Your task to perform on an android device: Open Google Chrome and open the bookmarks view Image 0: 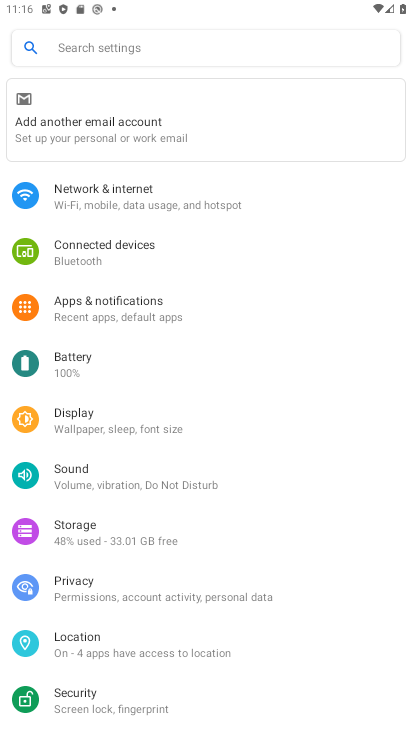
Step 0: press home button
Your task to perform on an android device: Open Google Chrome and open the bookmarks view Image 1: 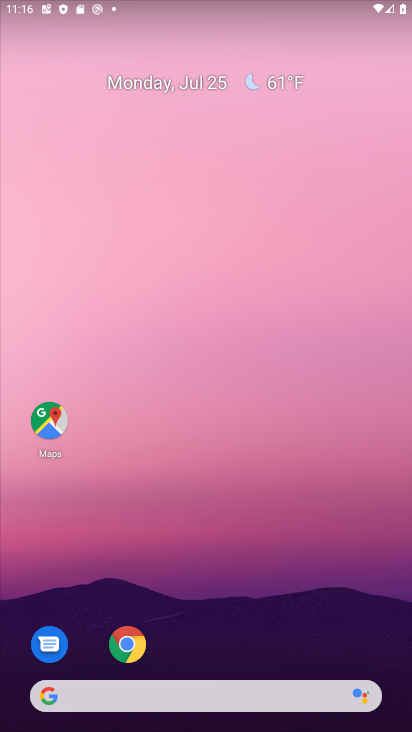
Step 1: drag from (204, 642) to (199, 329)
Your task to perform on an android device: Open Google Chrome and open the bookmarks view Image 2: 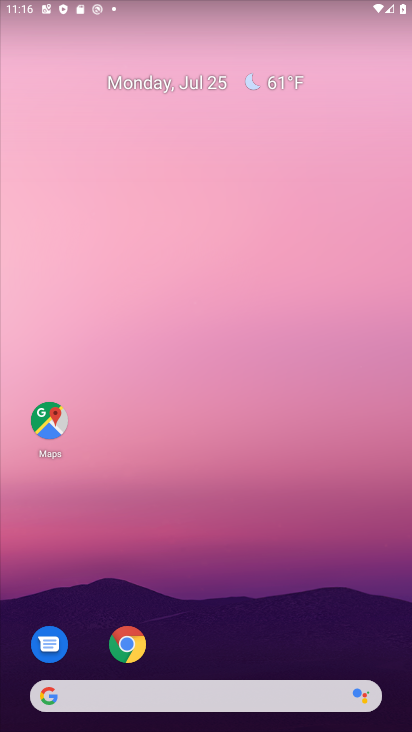
Step 2: drag from (215, 674) to (223, 298)
Your task to perform on an android device: Open Google Chrome and open the bookmarks view Image 3: 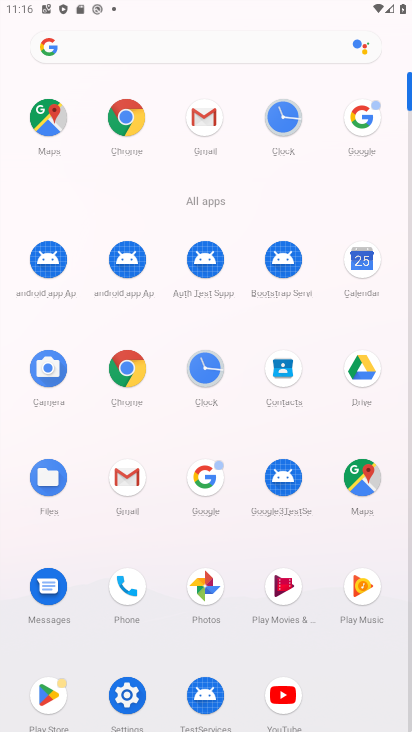
Step 3: click (135, 379)
Your task to perform on an android device: Open Google Chrome and open the bookmarks view Image 4: 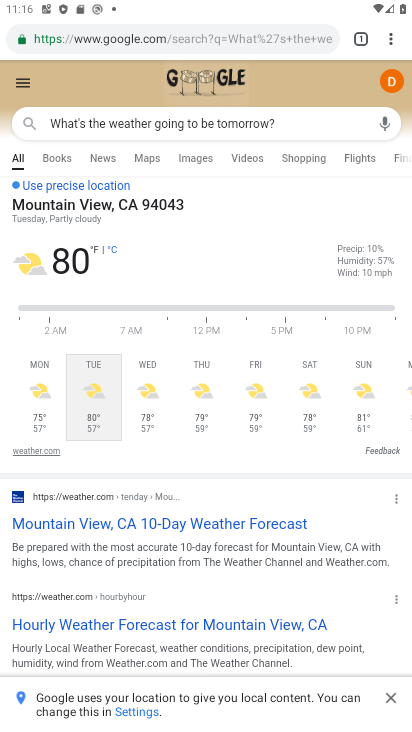
Step 4: click (398, 39)
Your task to perform on an android device: Open Google Chrome and open the bookmarks view Image 5: 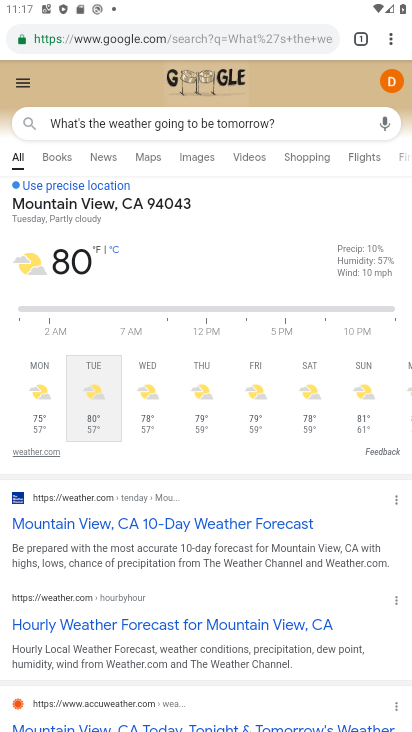
Step 5: click (394, 28)
Your task to perform on an android device: Open Google Chrome and open the bookmarks view Image 6: 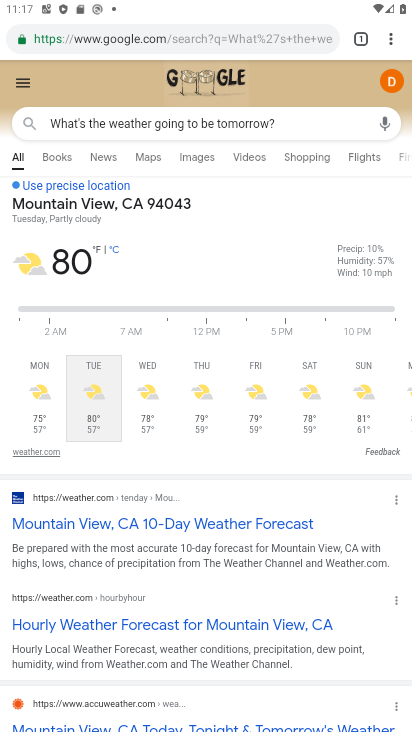
Step 6: click (394, 40)
Your task to perform on an android device: Open Google Chrome and open the bookmarks view Image 7: 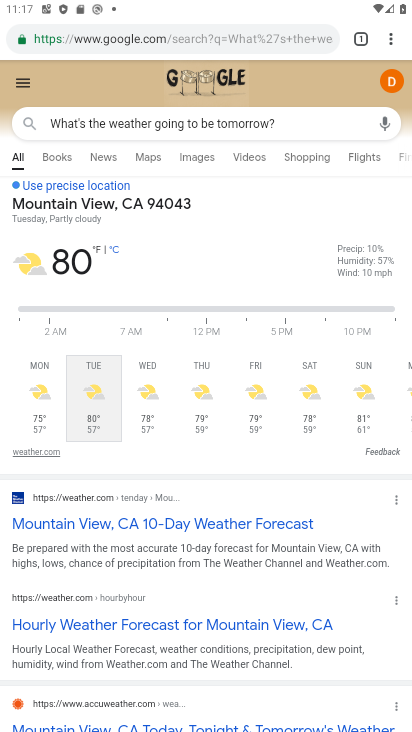
Step 7: click (394, 40)
Your task to perform on an android device: Open Google Chrome and open the bookmarks view Image 8: 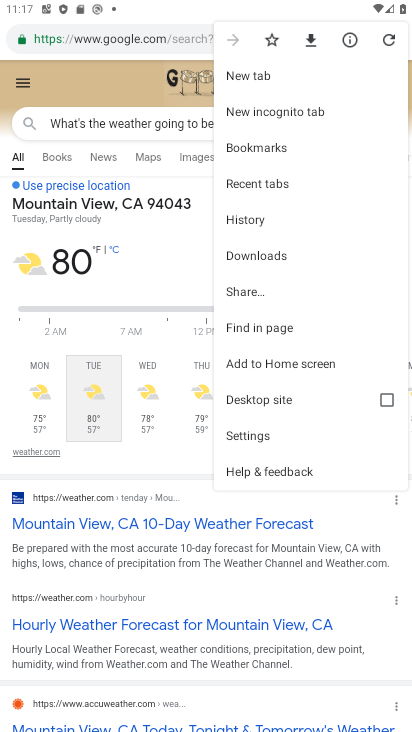
Step 8: click (285, 131)
Your task to perform on an android device: Open Google Chrome and open the bookmarks view Image 9: 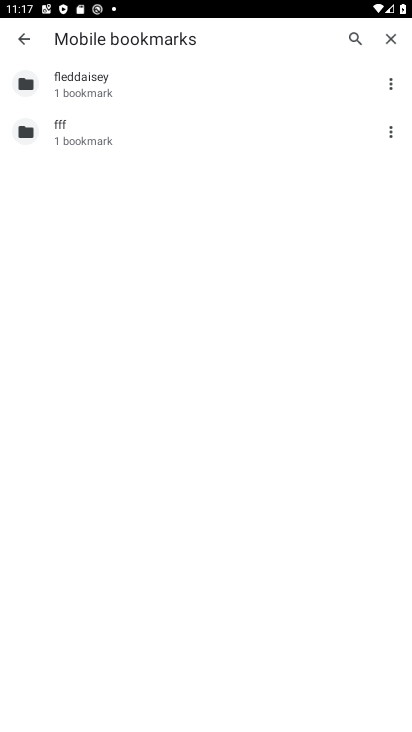
Step 9: task complete